Your task to perform on an android device: Open Chrome and go to the settings page Image 0: 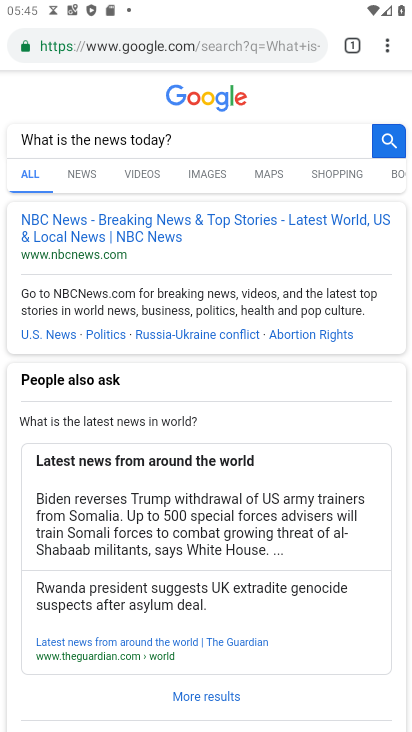
Step 0: press home button
Your task to perform on an android device: Open Chrome and go to the settings page Image 1: 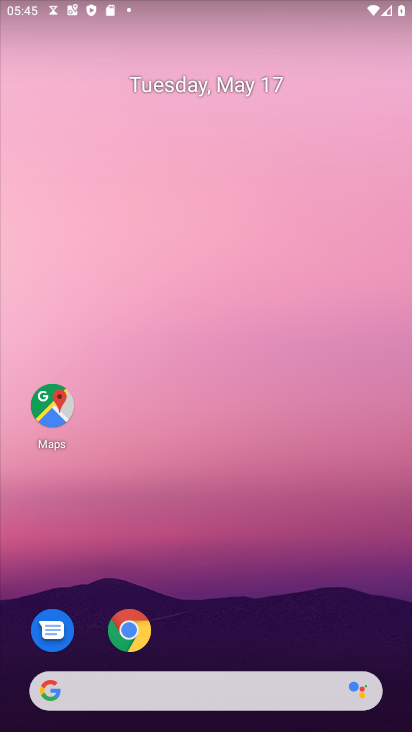
Step 1: click (138, 636)
Your task to perform on an android device: Open Chrome and go to the settings page Image 2: 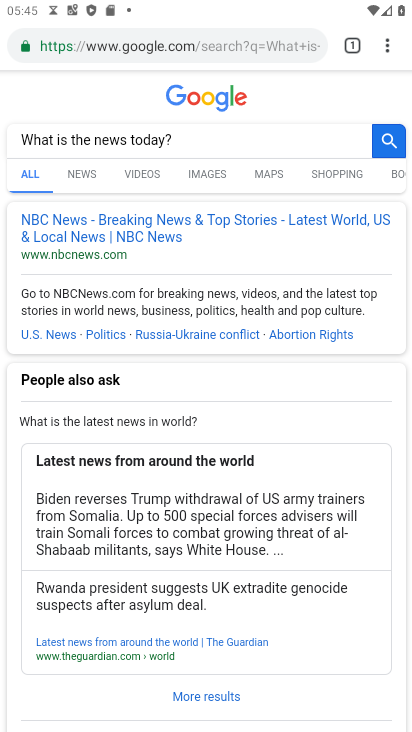
Step 2: click (266, 54)
Your task to perform on an android device: Open Chrome and go to the settings page Image 3: 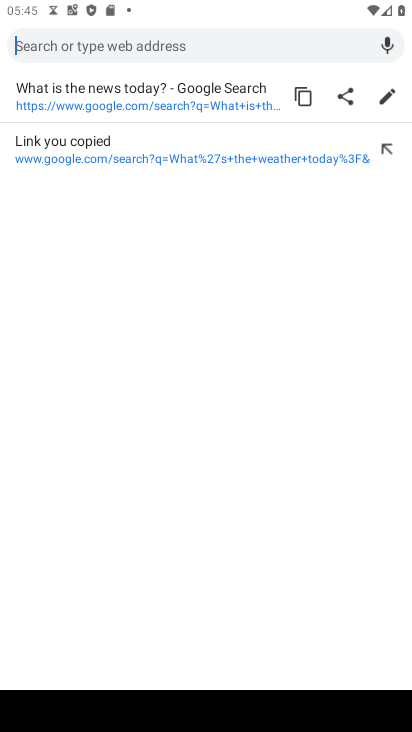
Step 3: click (117, 89)
Your task to perform on an android device: Open Chrome and go to the settings page Image 4: 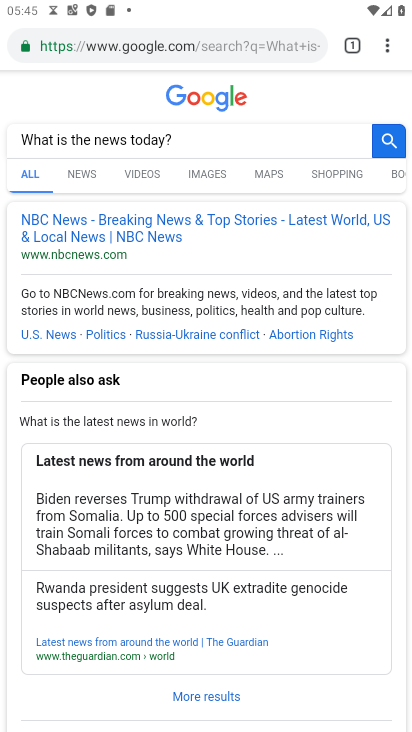
Step 4: click (74, 171)
Your task to perform on an android device: Open Chrome and go to the settings page Image 5: 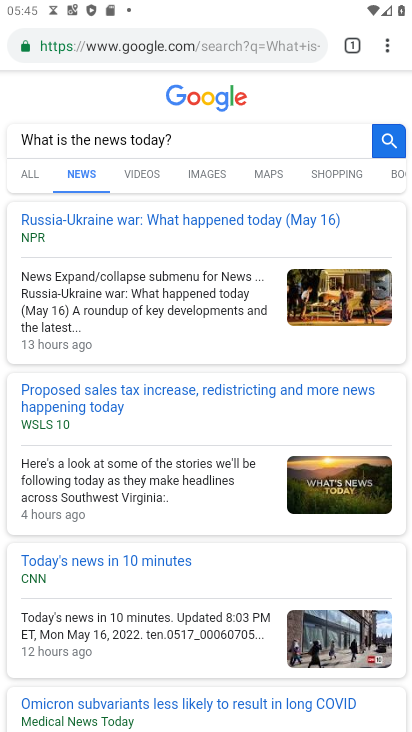
Step 5: task complete